Your task to perform on an android device: delete browsing data in the chrome app Image 0: 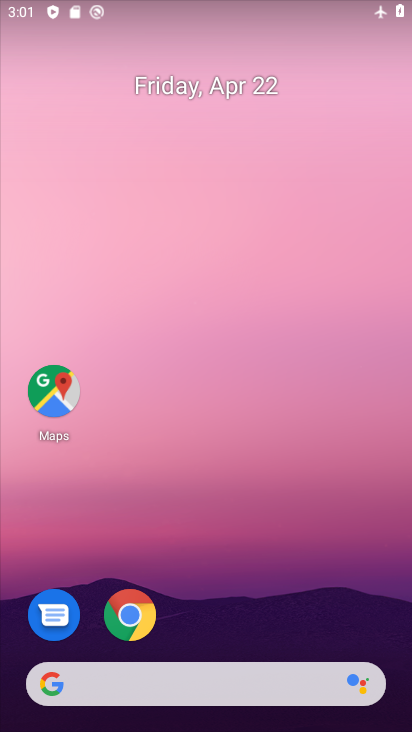
Step 0: click (128, 627)
Your task to perform on an android device: delete browsing data in the chrome app Image 1: 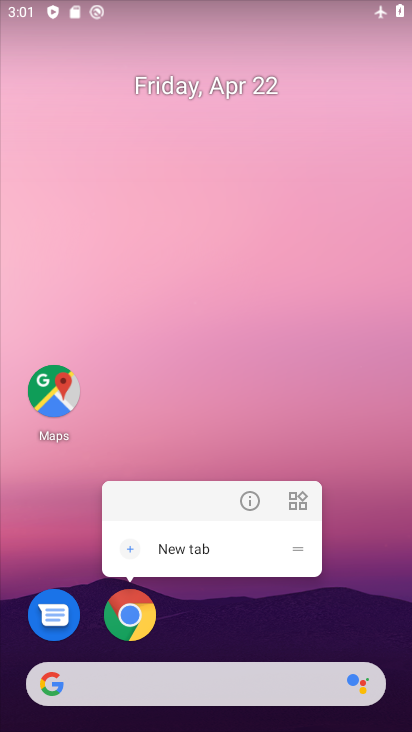
Step 1: click (128, 618)
Your task to perform on an android device: delete browsing data in the chrome app Image 2: 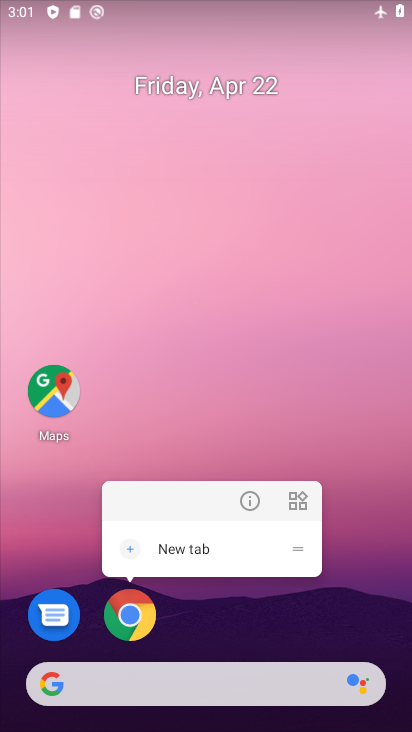
Step 2: click (128, 618)
Your task to perform on an android device: delete browsing data in the chrome app Image 3: 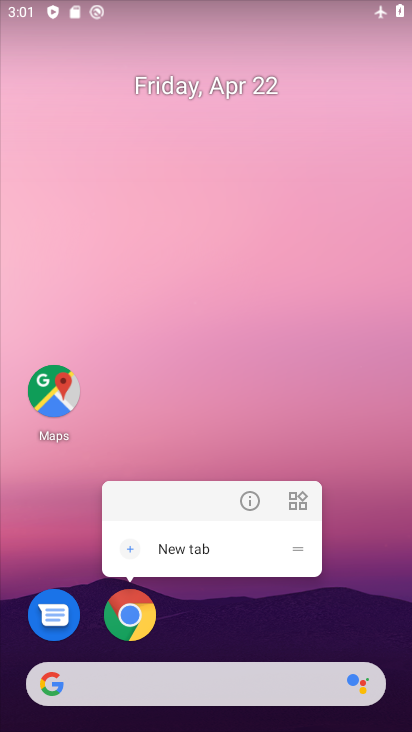
Step 3: click (128, 618)
Your task to perform on an android device: delete browsing data in the chrome app Image 4: 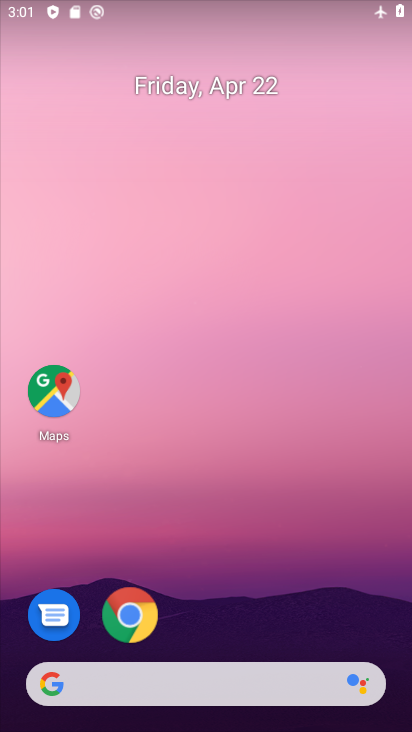
Step 4: click (128, 618)
Your task to perform on an android device: delete browsing data in the chrome app Image 5: 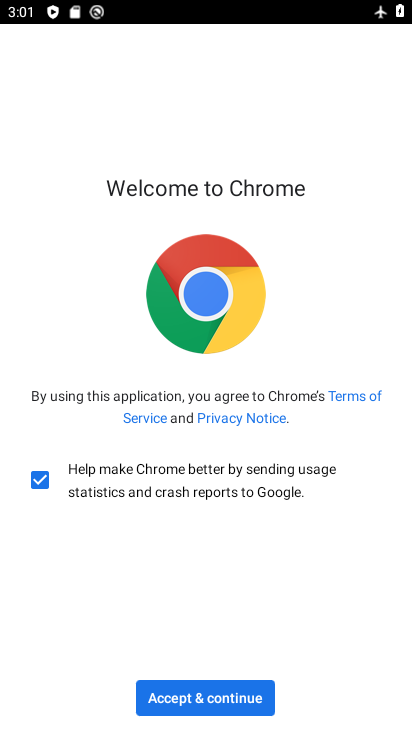
Step 5: click (230, 695)
Your task to perform on an android device: delete browsing data in the chrome app Image 6: 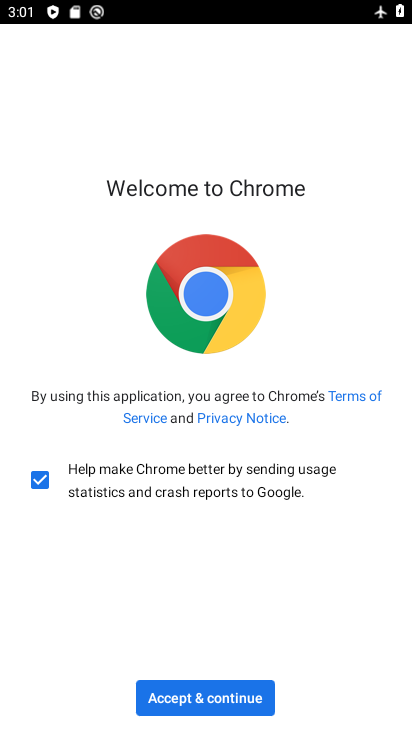
Step 6: click (230, 695)
Your task to perform on an android device: delete browsing data in the chrome app Image 7: 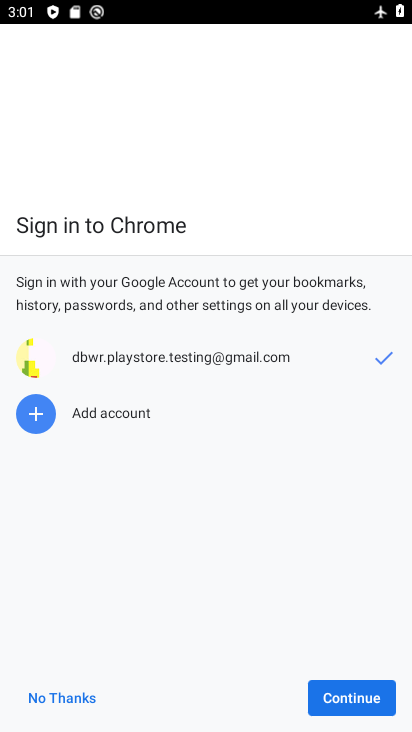
Step 7: click (355, 707)
Your task to perform on an android device: delete browsing data in the chrome app Image 8: 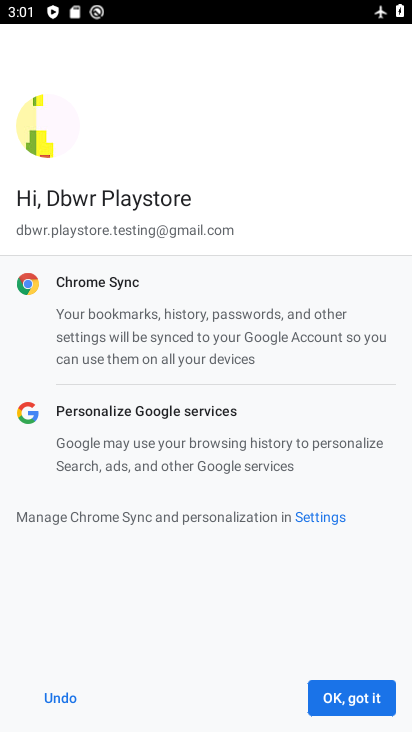
Step 8: click (355, 707)
Your task to perform on an android device: delete browsing data in the chrome app Image 9: 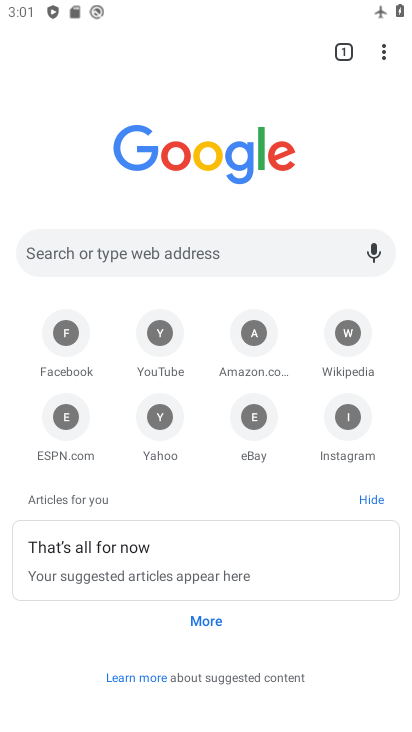
Step 9: click (384, 51)
Your task to perform on an android device: delete browsing data in the chrome app Image 10: 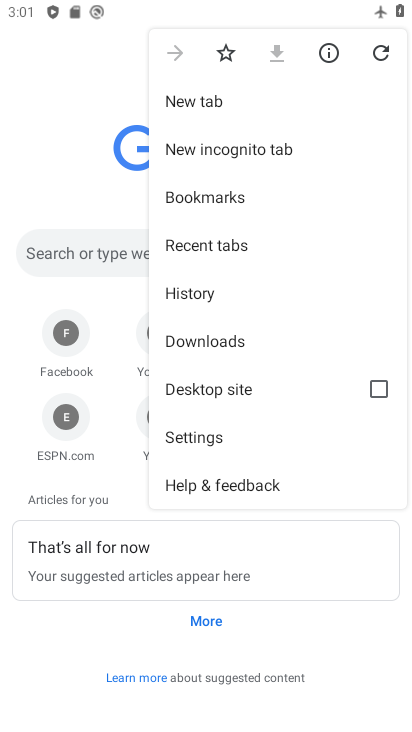
Step 10: click (197, 291)
Your task to perform on an android device: delete browsing data in the chrome app Image 11: 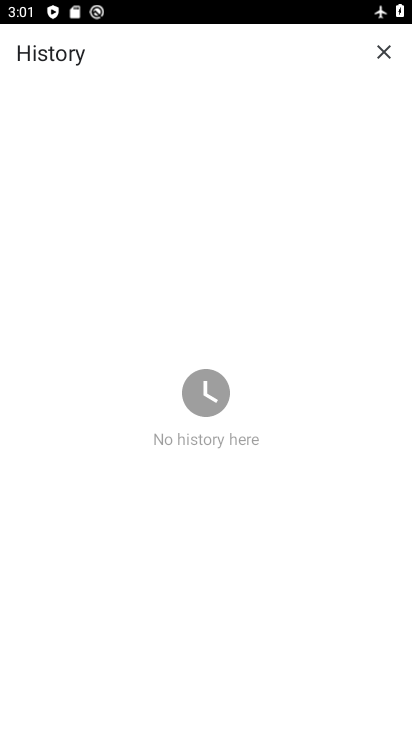
Step 11: task complete